Your task to perform on an android device: open wifi settings Image 0: 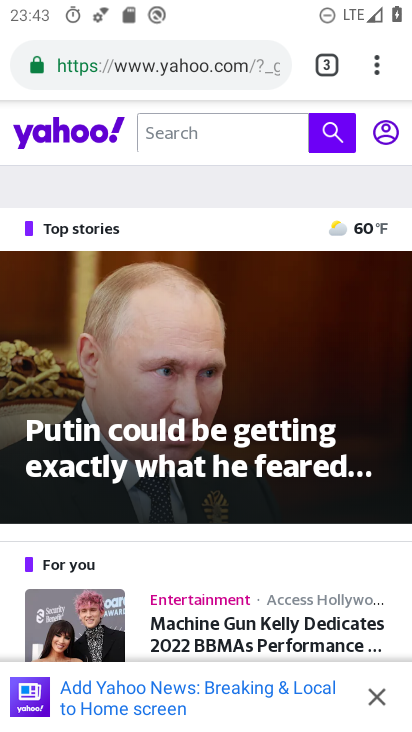
Step 0: press home button
Your task to perform on an android device: open wifi settings Image 1: 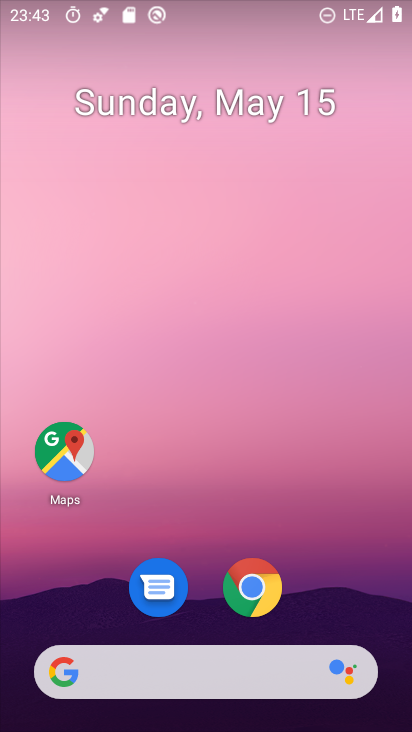
Step 1: drag from (206, 605) to (174, 197)
Your task to perform on an android device: open wifi settings Image 2: 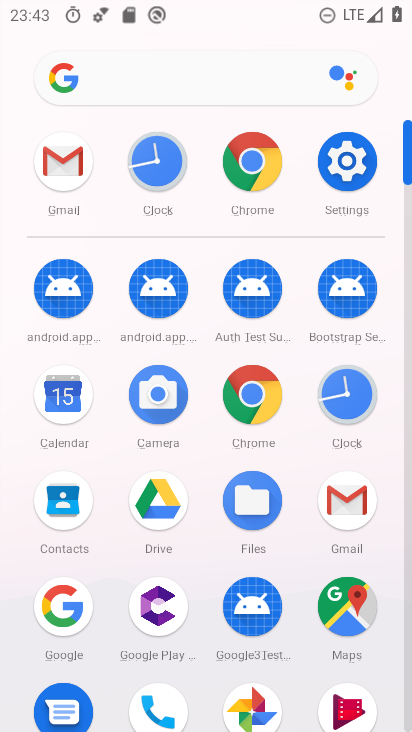
Step 2: click (327, 175)
Your task to perform on an android device: open wifi settings Image 3: 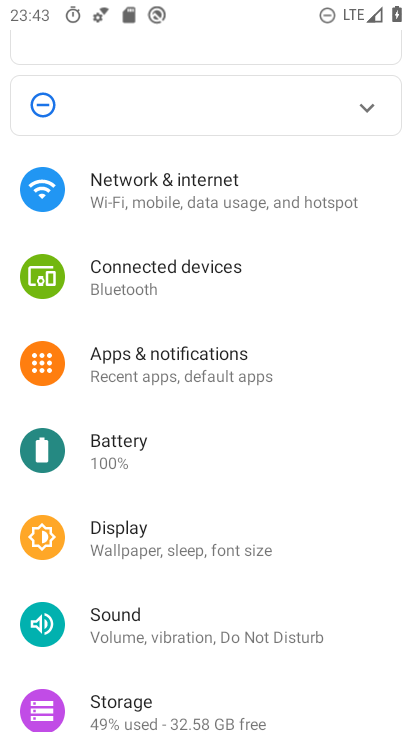
Step 3: click (219, 205)
Your task to perform on an android device: open wifi settings Image 4: 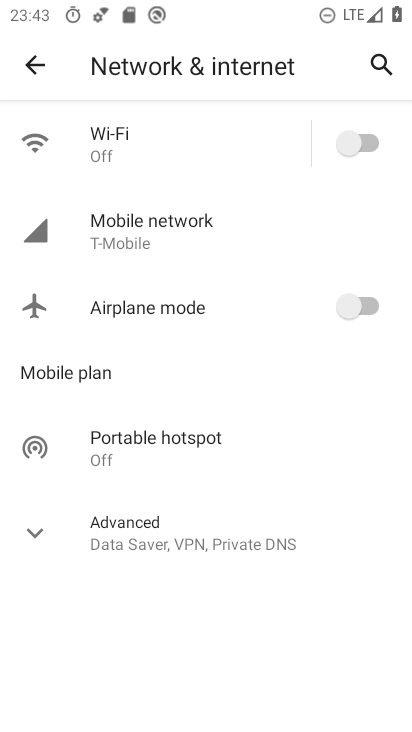
Step 4: click (204, 151)
Your task to perform on an android device: open wifi settings Image 5: 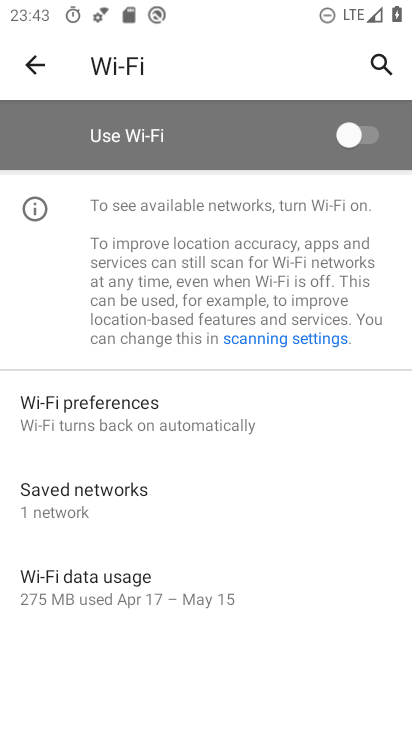
Step 5: task complete